Your task to perform on an android device: Open the web browser Image 0: 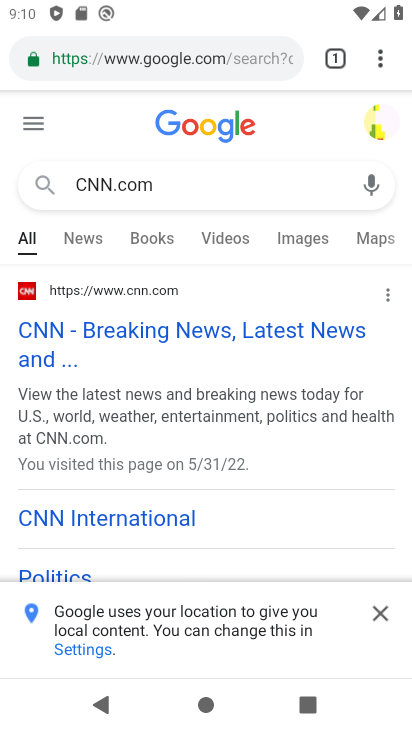
Step 0: drag from (131, 490) to (182, 197)
Your task to perform on an android device: Open the web browser Image 1: 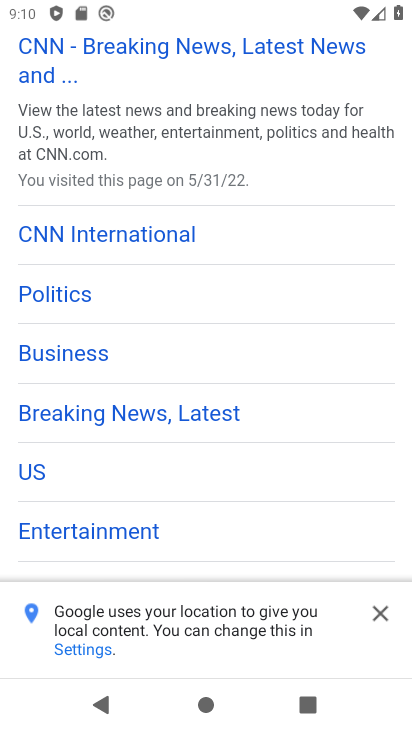
Step 1: task complete